Your task to perform on an android device: check battery use Image 0: 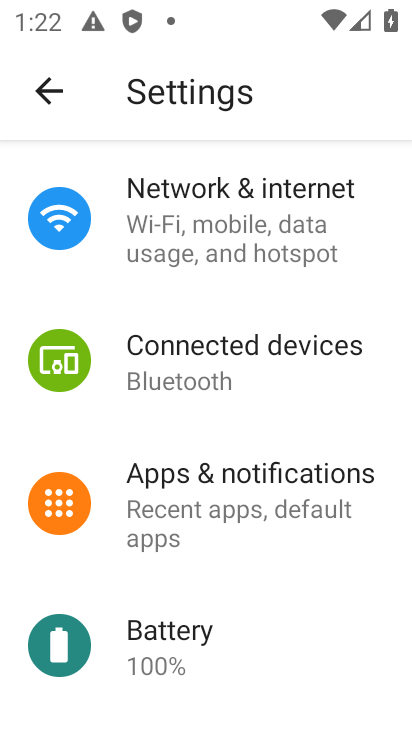
Step 0: click (270, 666)
Your task to perform on an android device: check battery use Image 1: 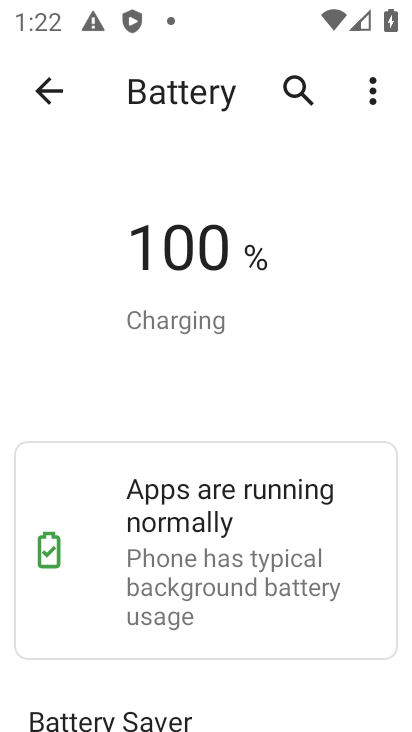
Step 1: task complete